Your task to perform on an android device: Is it going to rain tomorrow? Image 0: 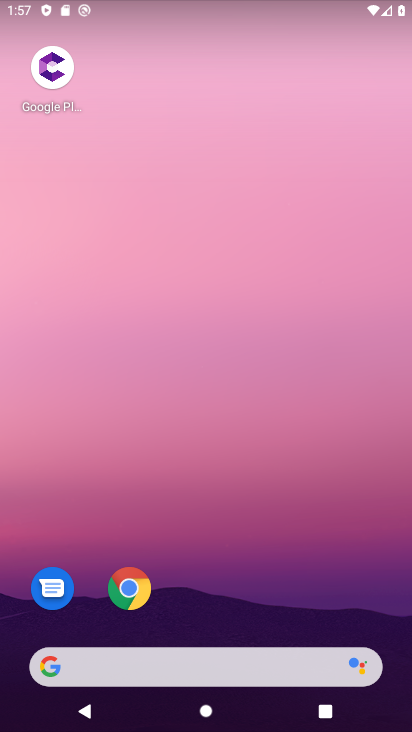
Step 0: drag from (276, 585) to (0, 212)
Your task to perform on an android device: Is it going to rain tomorrow? Image 1: 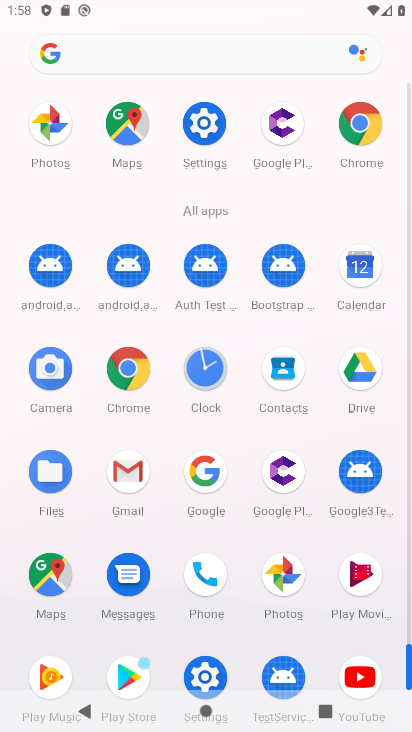
Step 1: drag from (10, 538) to (13, 246)
Your task to perform on an android device: Is it going to rain tomorrow? Image 2: 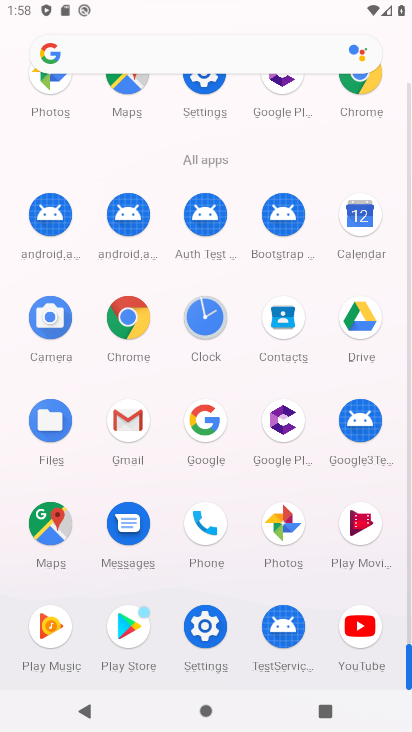
Step 2: click (127, 315)
Your task to perform on an android device: Is it going to rain tomorrow? Image 3: 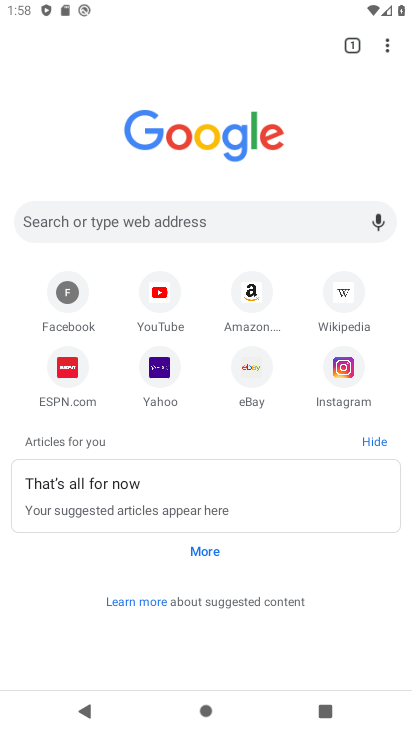
Step 3: click (217, 227)
Your task to perform on an android device: Is it going to rain tomorrow? Image 4: 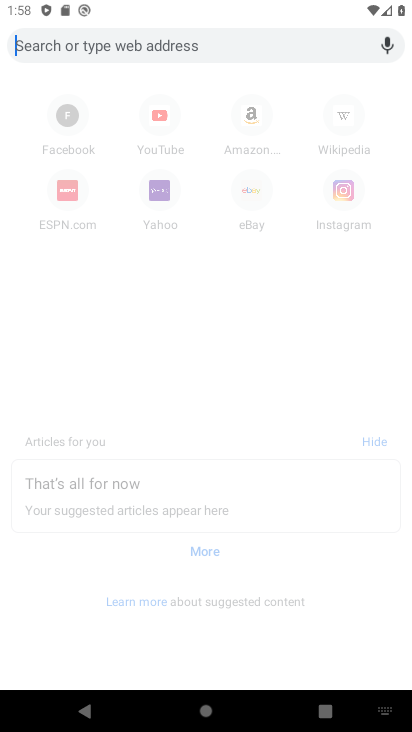
Step 4: type "Is it going to rain tomorrow?"
Your task to perform on an android device: Is it going to rain tomorrow? Image 5: 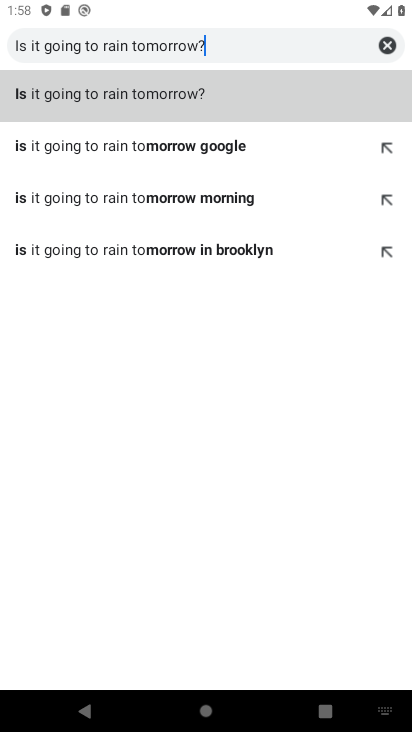
Step 5: type ""
Your task to perform on an android device: Is it going to rain tomorrow? Image 6: 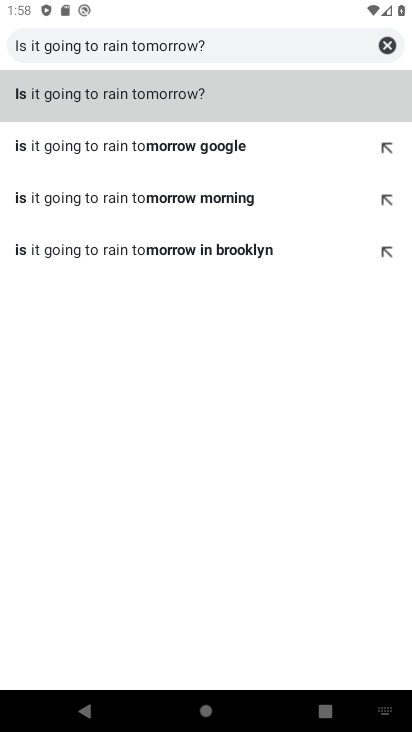
Step 6: click (237, 100)
Your task to perform on an android device: Is it going to rain tomorrow? Image 7: 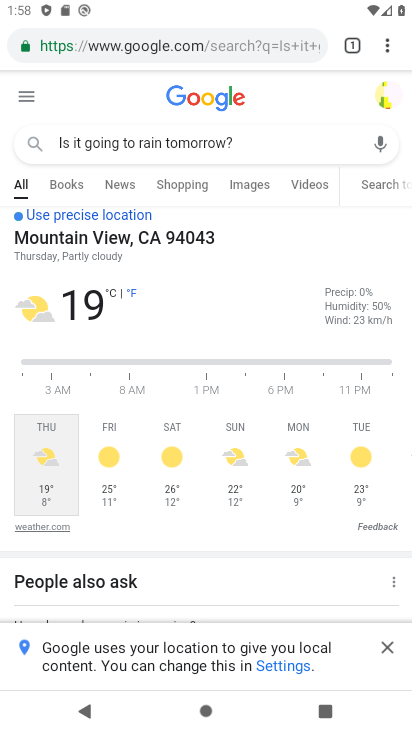
Step 7: task complete